Your task to perform on an android device: show emergency info Image 0: 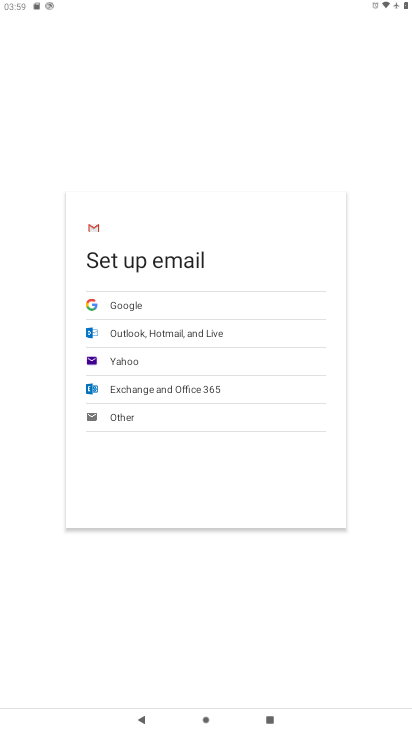
Step 0: press home button
Your task to perform on an android device: show emergency info Image 1: 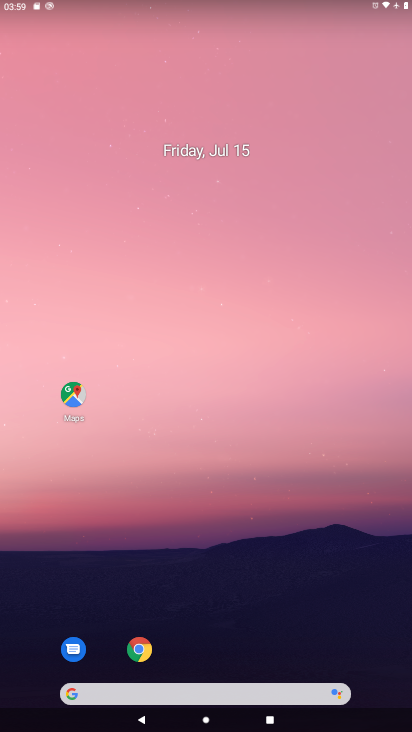
Step 1: drag from (377, 667) to (338, 114)
Your task to perform on an android device: show emergency info Image 2: 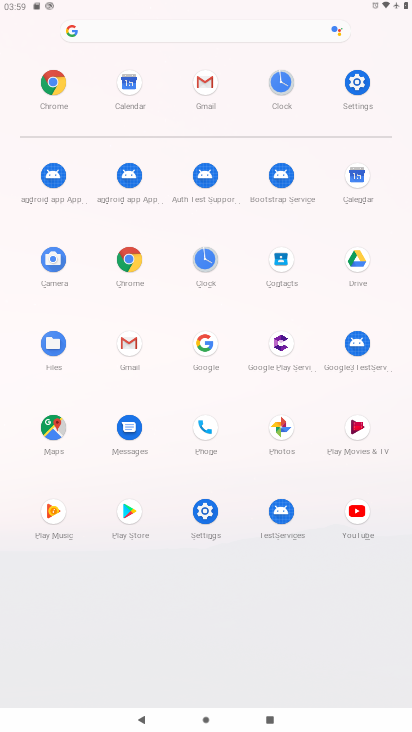
Step 2: click (203, 514)
Your task to perform on an android device: show emergency info Image 3: 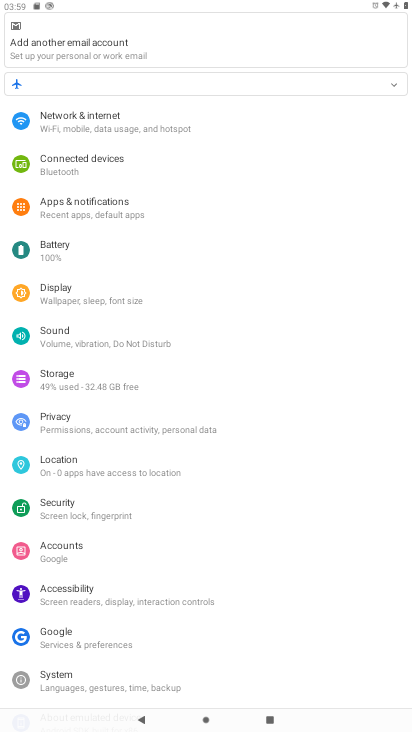
Step 3: drag from (256, 672) to (255, 208)
Your task to perform on an android device: show emergency info Image 4: 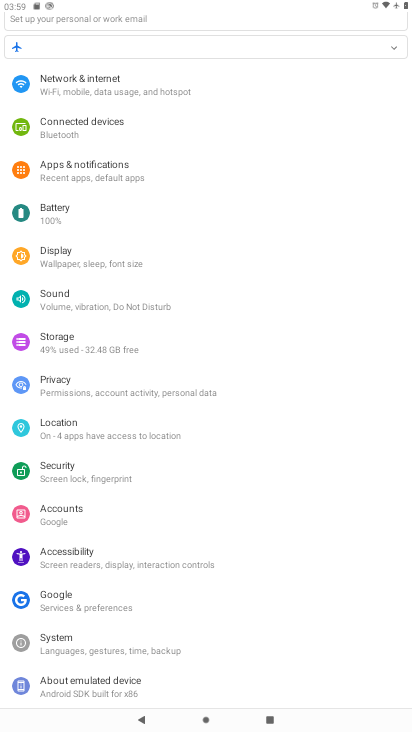
Step 4: click (61, 681)
Your task to perform on an android device: show emergency info Image 5: 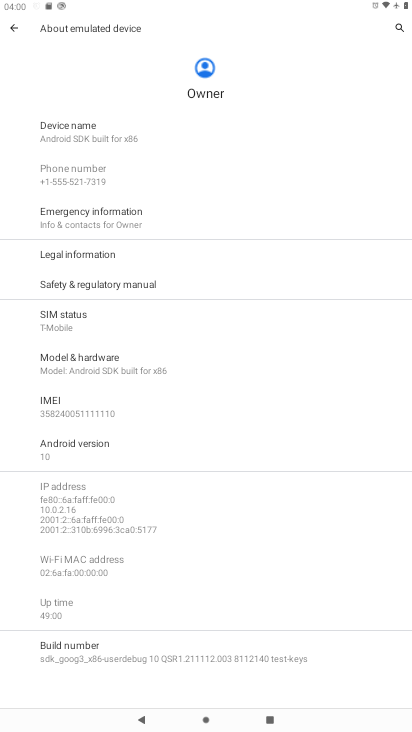
Step 5: click (68, 217)
Your task to perform on an android device: show emergency info Image 6: 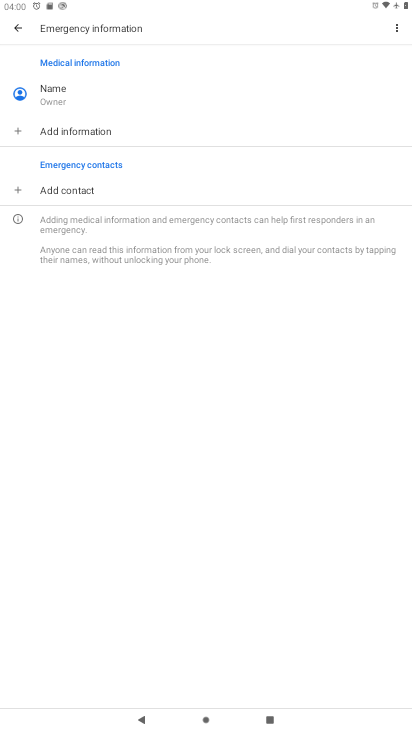
Step 6: task complete